Your task to perform on an android device: turn notification dots off Image 0: 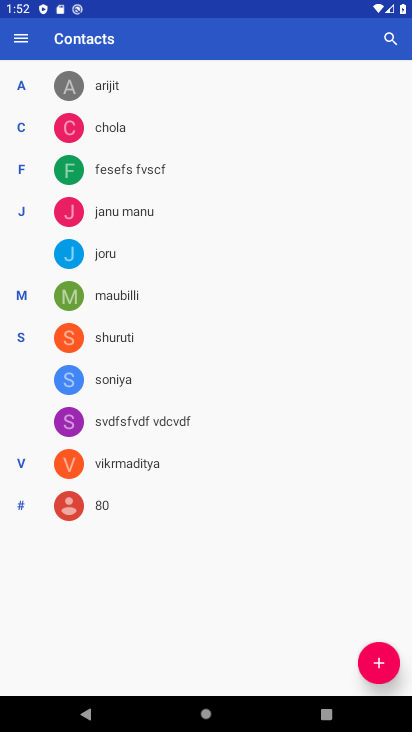
Step 0: press home button
Your task to perform on an android device: turn notification dots off Image 1: 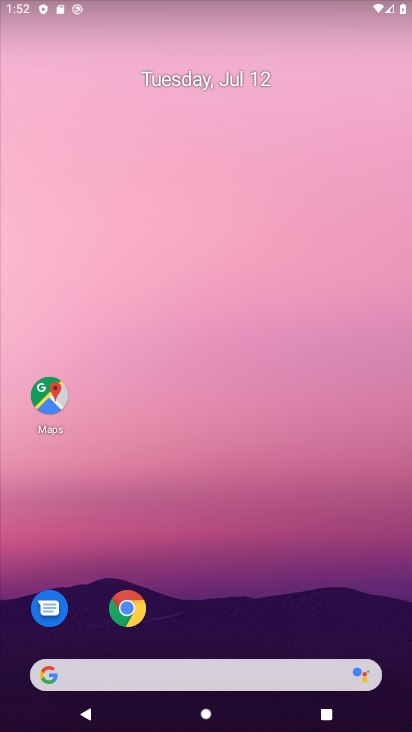
Step 1: drag from (284, 623) to (243, 166)
Your task to perform on an android device: turn notification dots off Image 2: 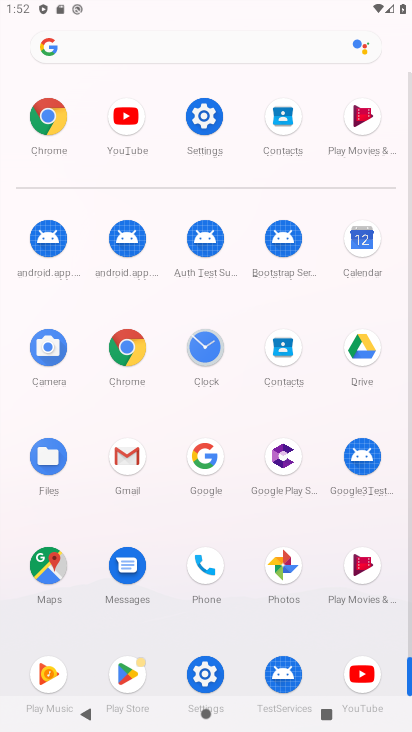
Step 2: click (211, 119)
Your task to perform on an android device: turn notification dots off Image 3: 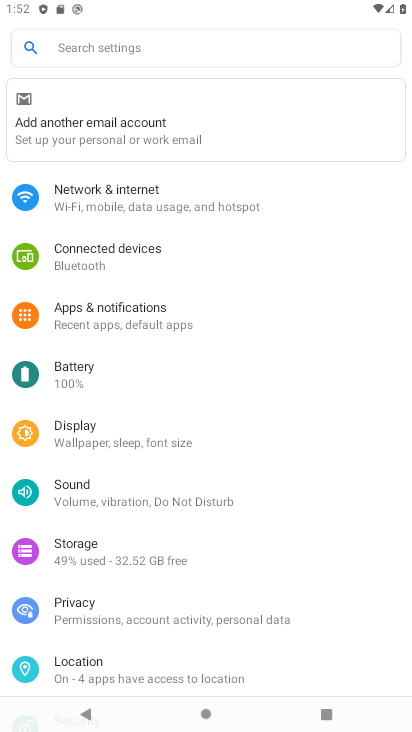
Step 3: click (188, 321)
Your task to perform on an android device: turn notification dots off Image 4: 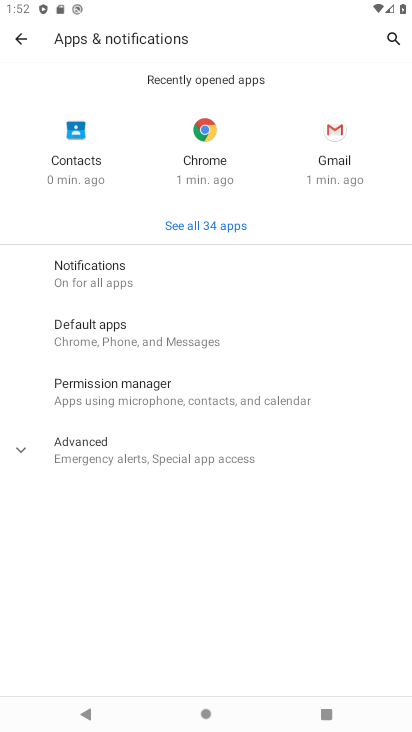
Step 4: click (131, 284)
Your task to perform on an android device: turn notification dots off Image 5: 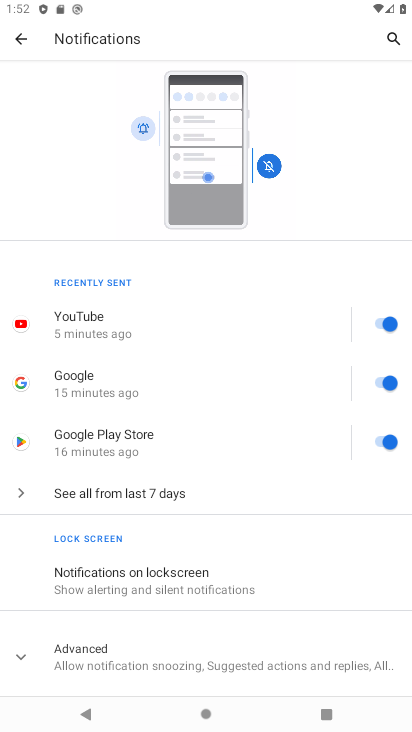
Step 5: drag from (214, 599) to (234, 181)
Your task to perform on an android device: turn notification dots off Image 6: 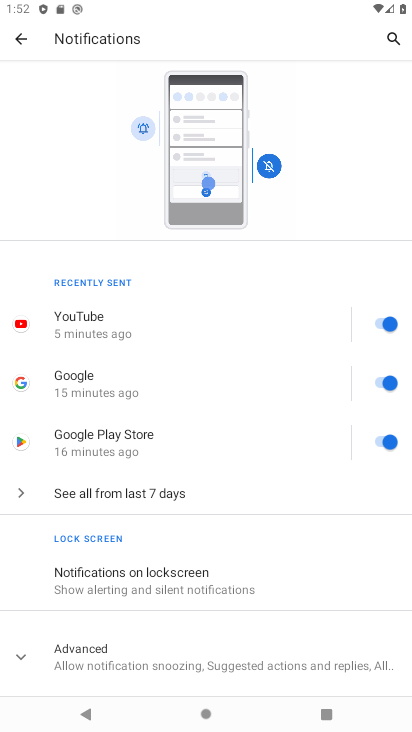
Step 6: click (199, 664)
Your task to perform on an android device: turn notification dots off Image 7: 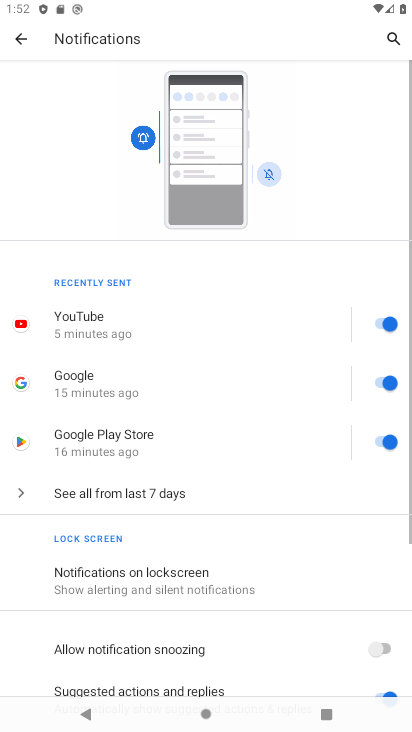
Step 7: drag from (255, 631) to (256, 197)
Your task to perform on an android device: turn notification dots off Image 8: 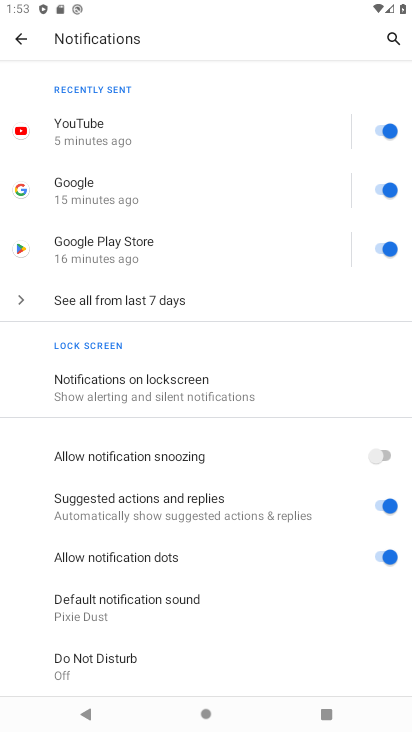
Step 8: click (385, 555)
Your task to perform on an android device: turn notification dots off Image 9: 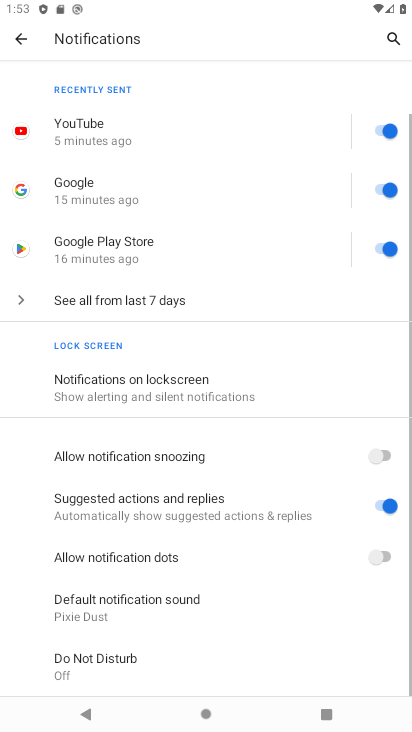
Step 9: task complete